Your task to perform on an android device: toggle improve location accuracy Image 0: 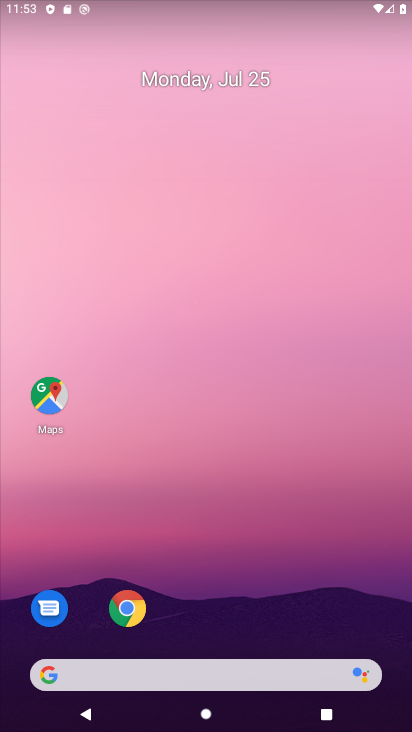
Step 0: drag from (264, 631) to (241, 148)
Your task to perform on an android device: toggle improve location accuracy Image 1: 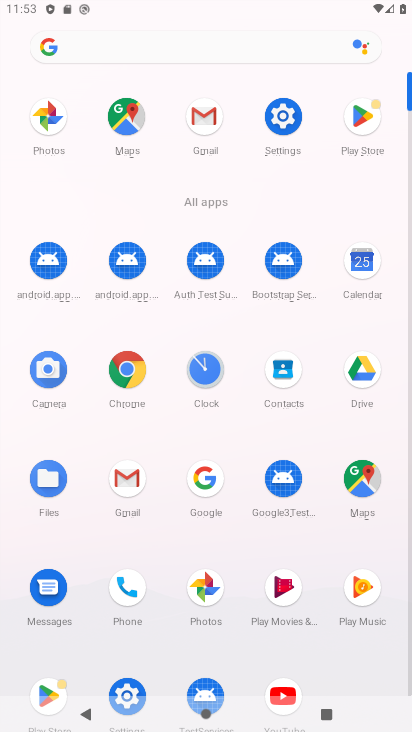
Step 1: click (278, 139)
Your task to perform on an android device: toggle improve location accuracy Image 2: 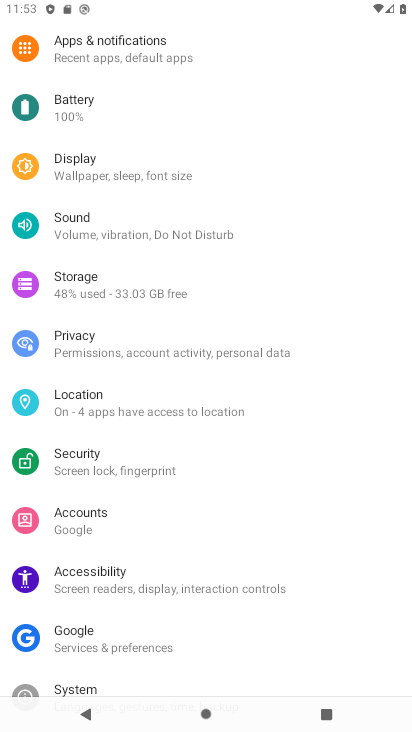
Step 2: click (217, 397)
Your task to perform on an android device: toggle improve location accuracy Image 3: 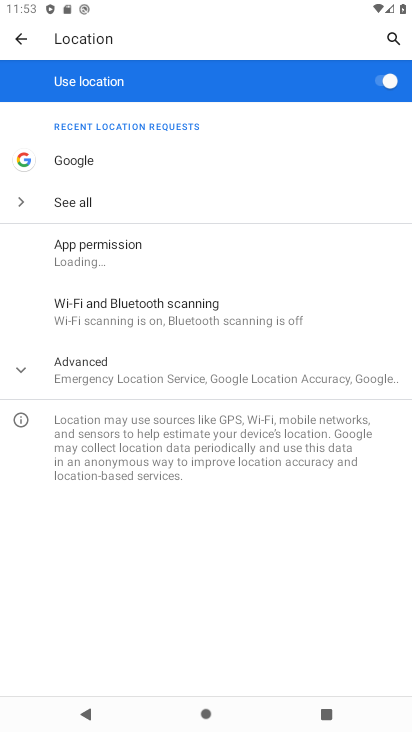
Step 3: click (254, 362)
Your task to perform on an android device: toggle improve location accuracy Image 4: 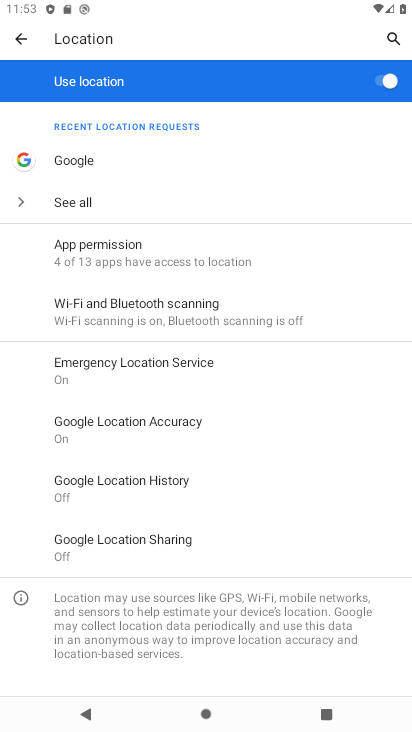
Step 4: click (223, 418)
Your task to perform on an android device: toggle improve location accuracy Image 5: 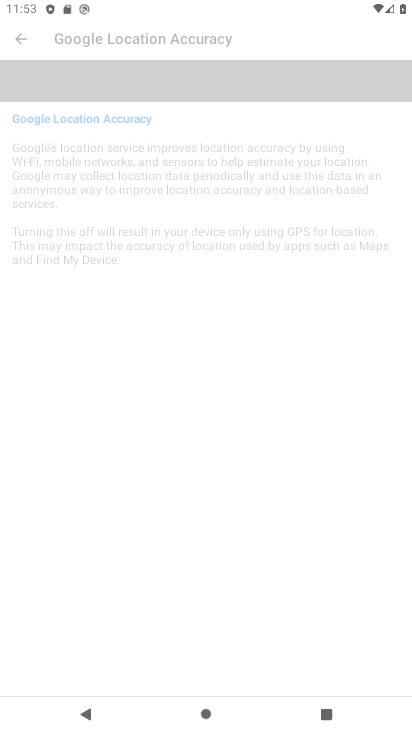
Step 5: task complete